Your task to perform on an android device: all mails in gmail Image 0: 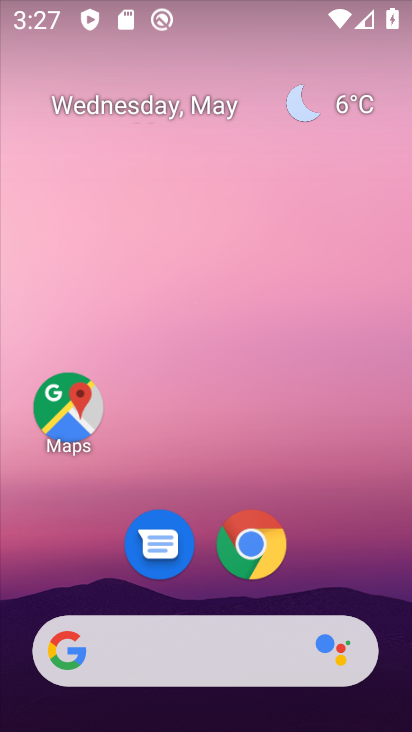
Step 0: drag from (57, 595) to (272, 216)
Your task to perform on an android device: all mails in gmail Image 1: 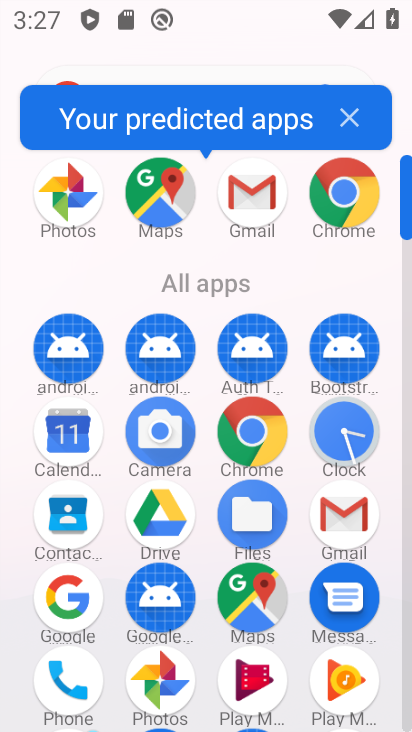
Step 1: click (330, 508)
Your task to perform on an android device: all mails in gmail Image 2: 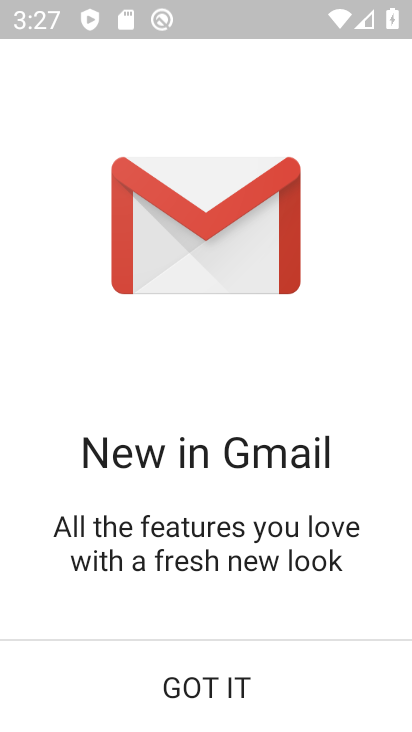
Step 2: click (200, 691)
Your task to perform on an android device: all mails in gmail Image 3: 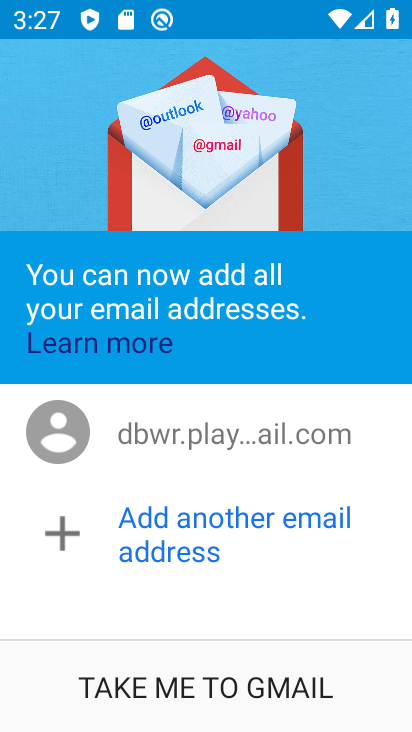
Step 3: click (246, 704)
Your task to perform on an android device: all mails in gmail Image 4: 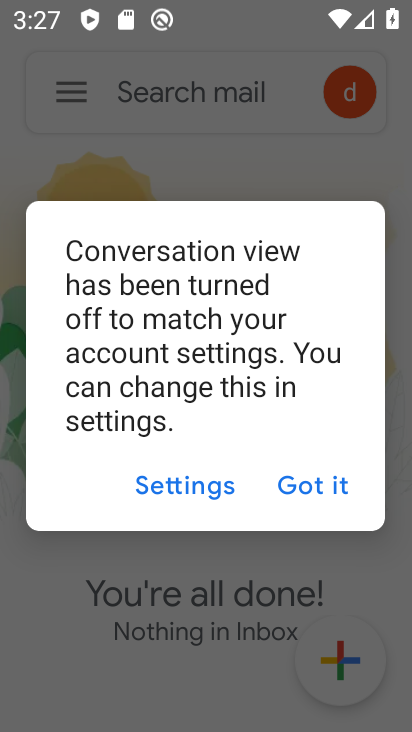
Step 4: click (284, 489)
Your task to perform on an android device: all mails in gmail Image 5: 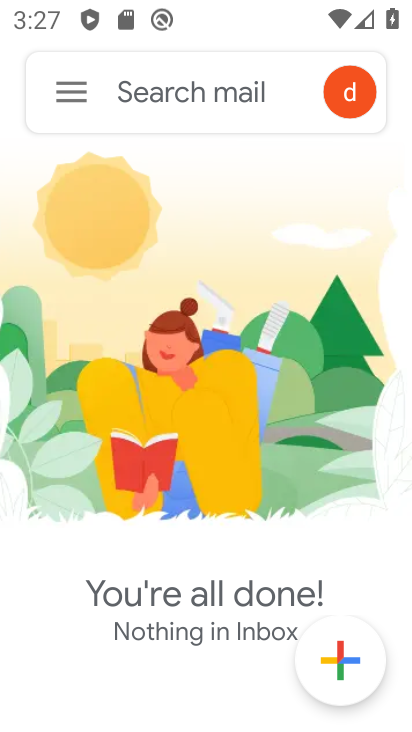
Step 5: click (81, 93)
Your task to perform on an android device: all mails in gmail Image 6: 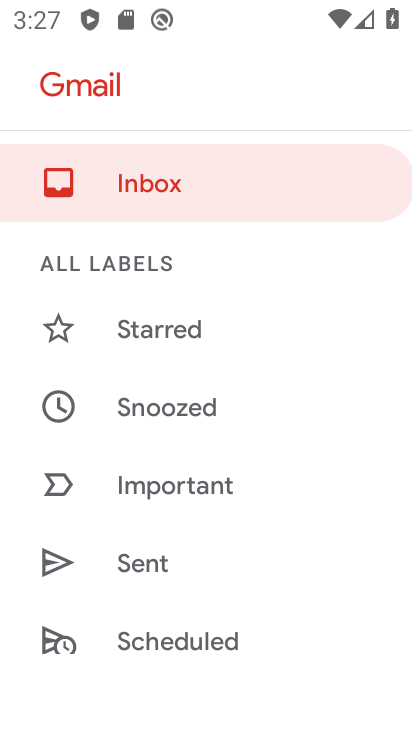
Step 6: click (126, 177)
Your task to perform on an android device: all mails in gmail Image 7: 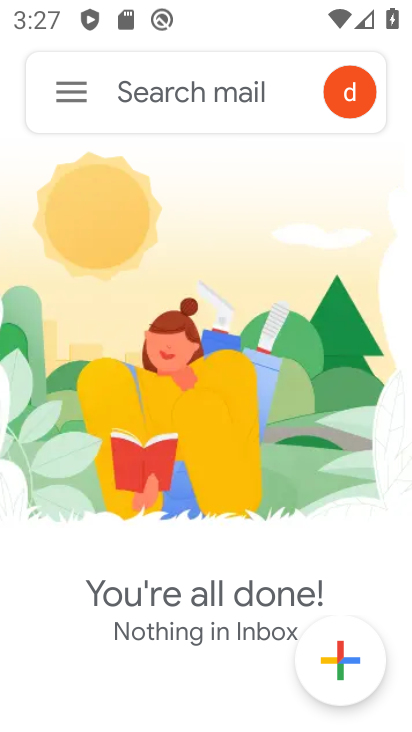
Step 7: click (68, 93)
Your task to perform on an android device: all mails in gmail Image 8: 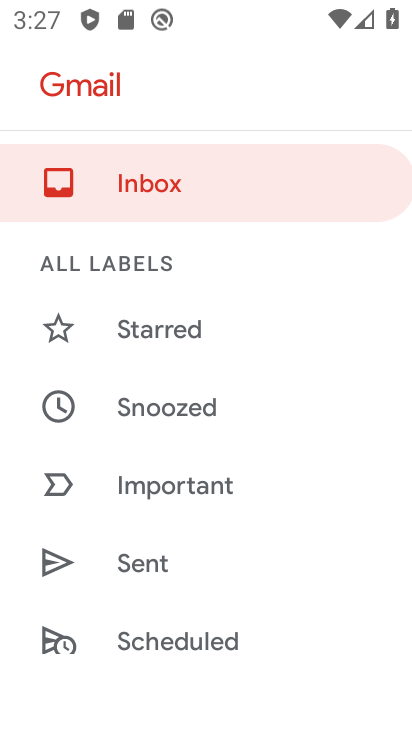
Step 8: drag from (140, 669) to (287, 174)
Your task to perform on an android device: all mails in gmail Image 9: 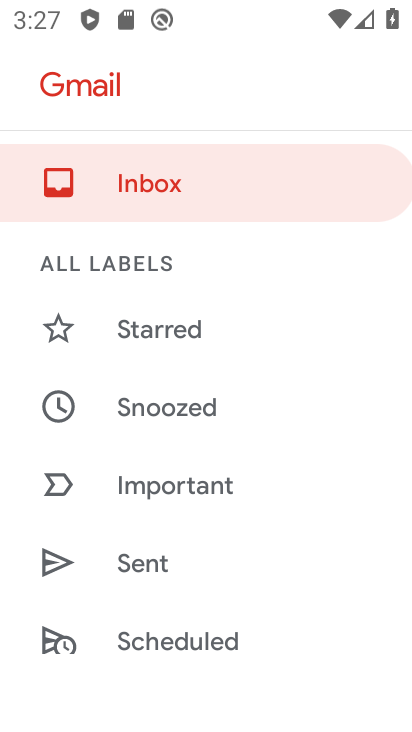
Step 9: drag from (173, 634) to (357, 159)
Your task to perform on an android device: all mails in gmail Image 10: 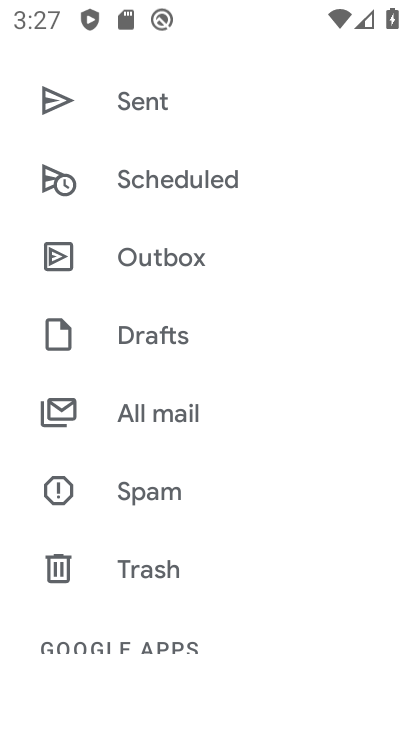
Step 10: click (134, 415)
Your task to perform on an android device: all mails in gmail Image 11: 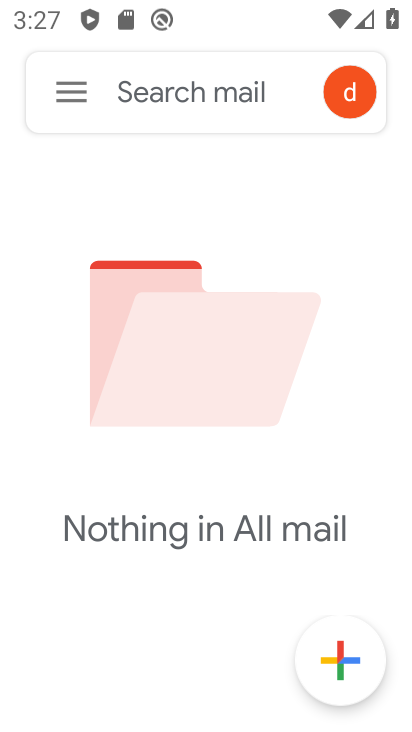
Step 11: task complete